Your task to perform on an android device: What's on my calendar today? Image 0: 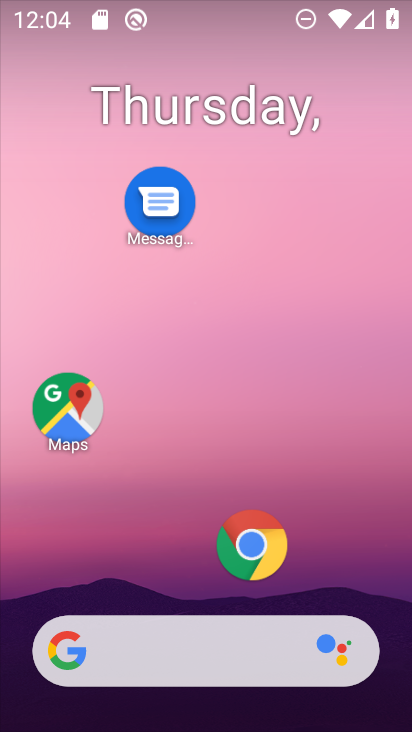
Step 0: drag from (207, 598) to (206, 268)
Your task to perform on an android device: What's on my calendar today? Image 1: 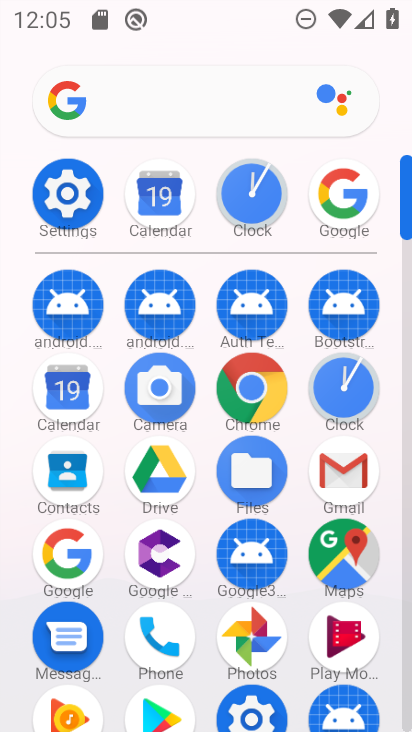
Step 1: click (64, 407)
Your task to perform on an android device: What's on my calendar today? Image 2: 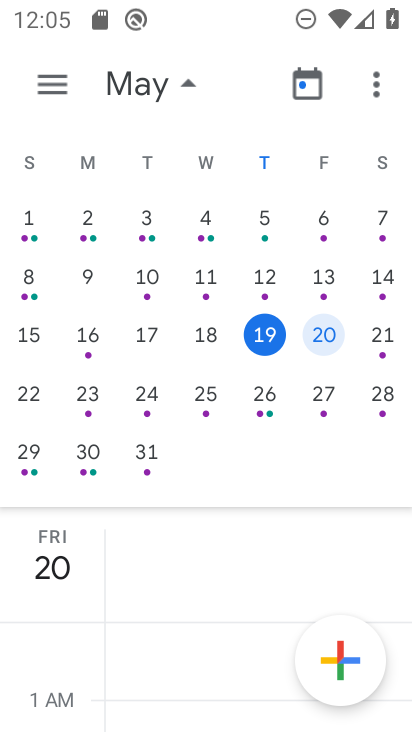
Step 2: click (257, 333)
Your task to perform on an android device: What's on my calendar today? Image 3: 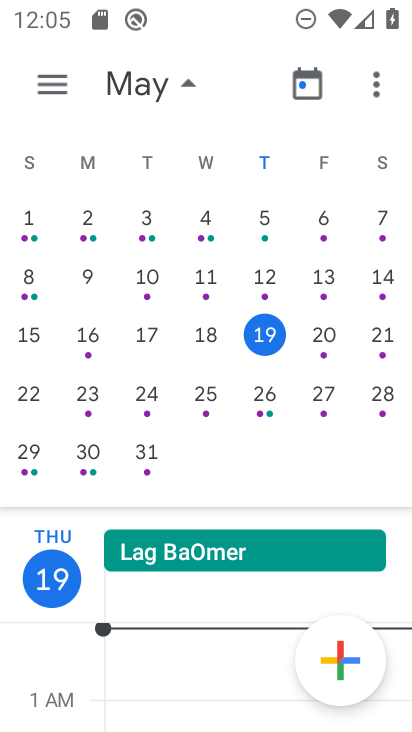
Step 3: task complete